Your task to perform on an android device: empty trash in the gmail app Image 0: 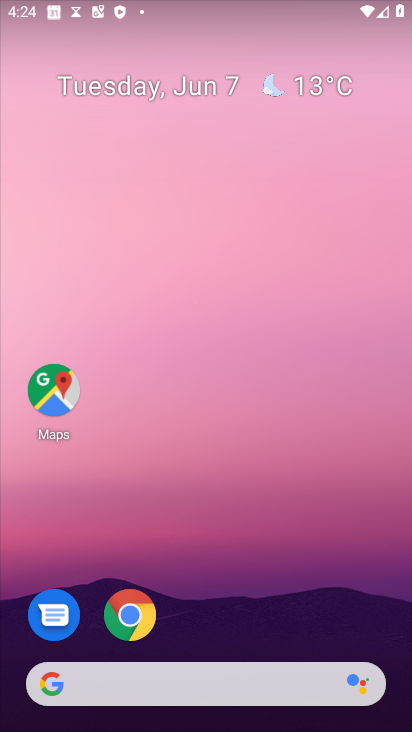
Step 0: drag from (214, 592) to (117, 56)
Your task to perform on an android device: empty trash in the gmail app Image 1: 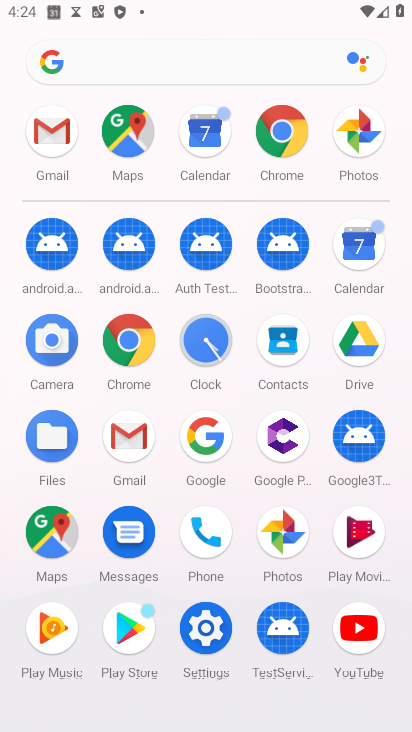
Step 1: click (130, 440)
Your task to perform on an android device: empty trash in the gmail app Image 2: 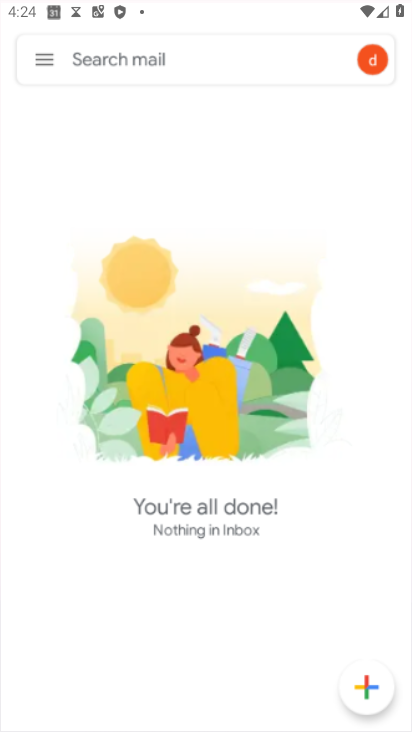
Step 2: click (130, 433)
Your task to perform on an android device: empty trash in the gmail app Image 3: 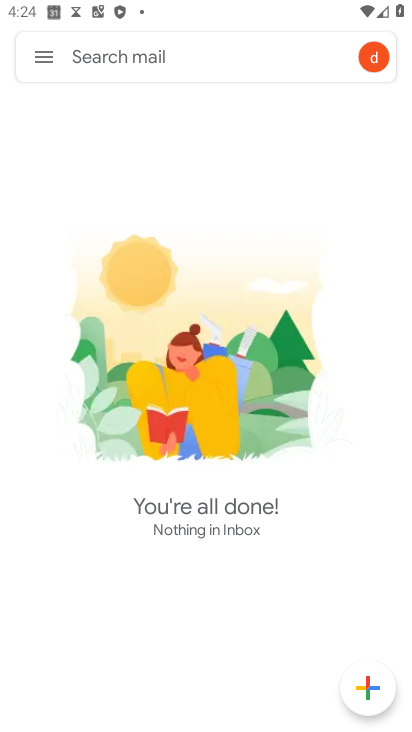
Step 3: click (130, 433)
Your task to perform on an android device: empty trash in the gmail app Image 4: 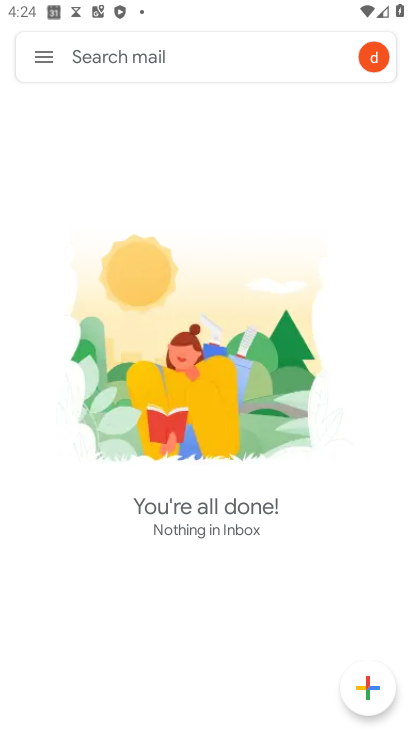
Step 4: click (130, 433)
Your task to perform on an android device: empty trash in the gmail app Image 5: 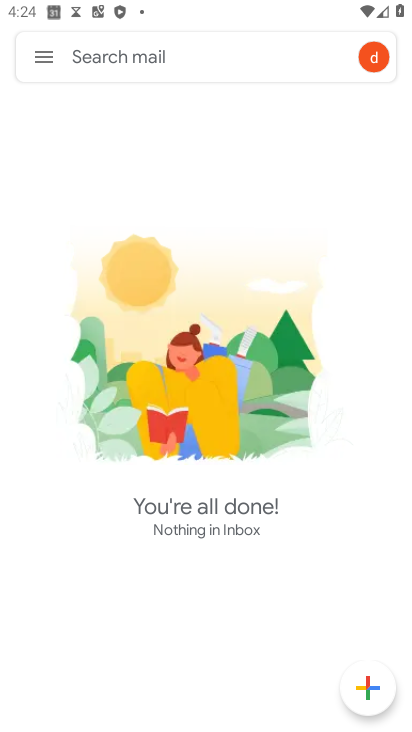
Step 5: click (36, 58)
Your task to perform on an android device: empty trash in the gmail app Image 6: 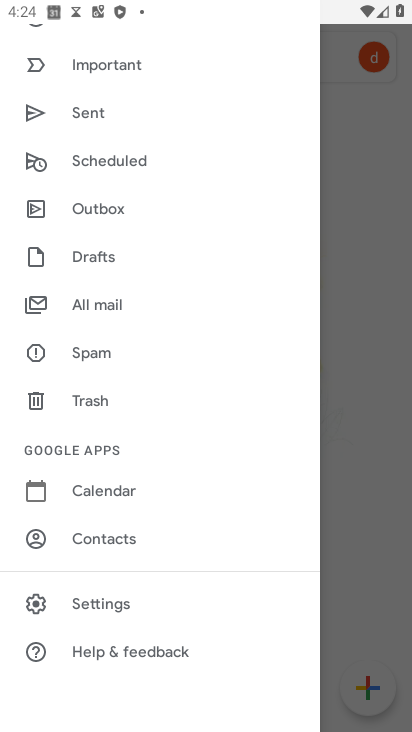
Step 6: click (82, 412)
Your task to perform on an android device: empty trash in the gmail app Image 7: 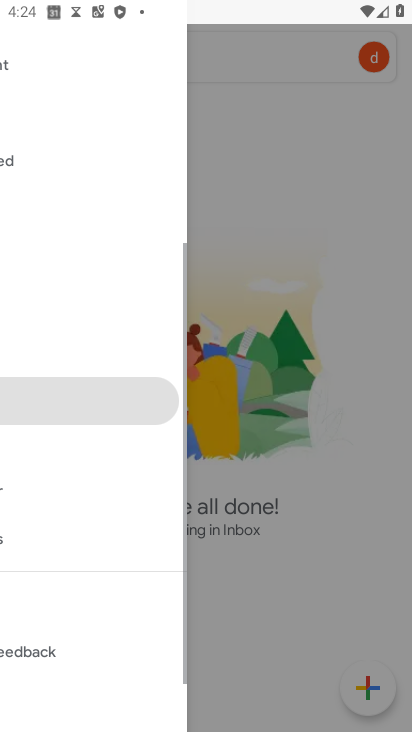
Step 7: click (82, 412)
Your task to perform on an android device: empty trash in the gmail app Image 8: 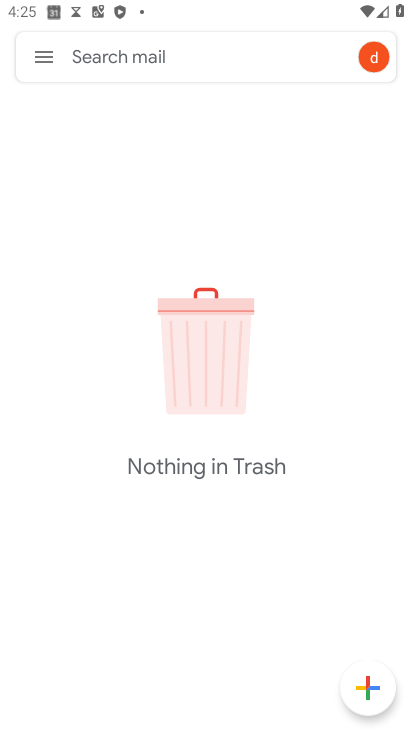
Step 8: task complete